Your task to perform on an android device: turn off notifications in google photos Image 0: 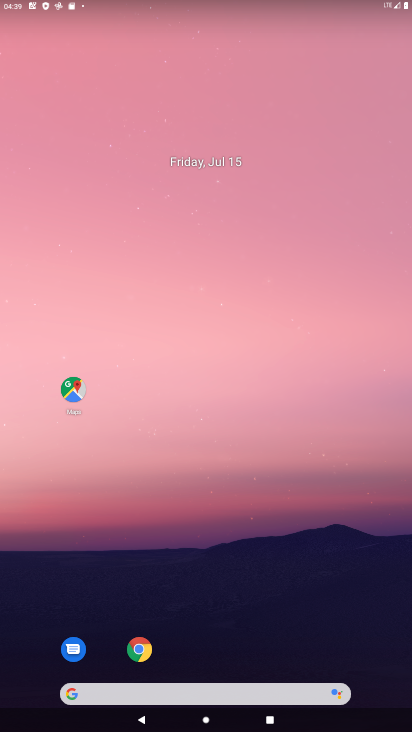
Step 0: drag from (320, 649) to (174, 246)
Your task to perform on an android device: turn off notifications in google photos Image 1: 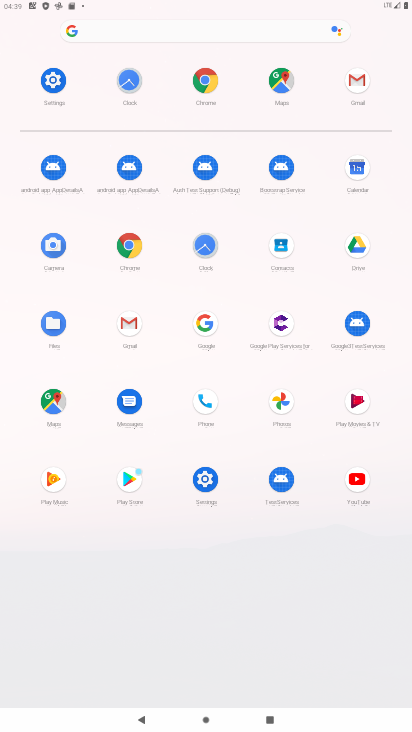
Step 1: click (275, 399)
Your task to perform on an android device: turn off notifications in google photos Image 2: 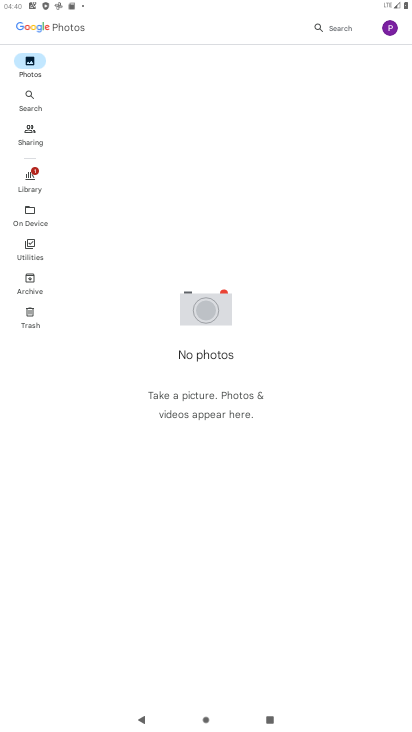
Step 2: click (395, 32)
Your task to perform on an android device: turn off notifications in google photos Image 3: 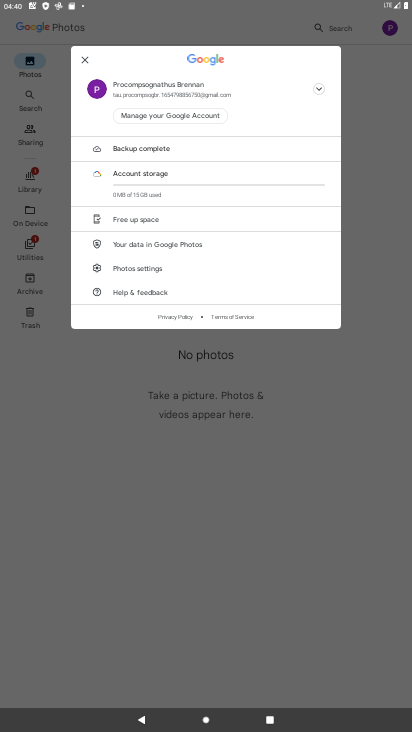
Step 3: click (148, 269)
Your task to perform on an android device: turn off notifications in google photos Image 4: 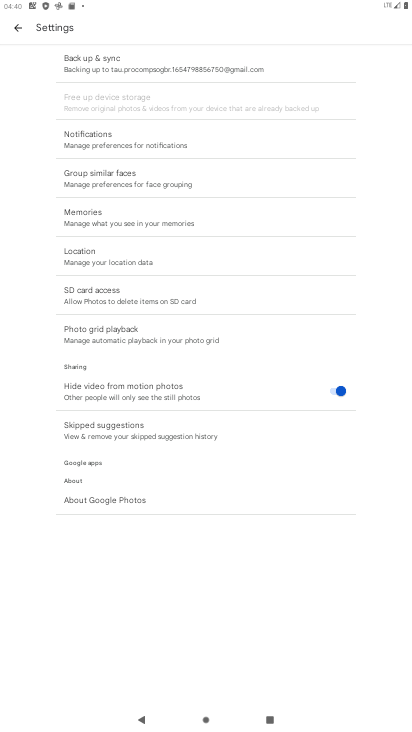
Step 4: click (70, 143)
Your task to perform on an android device: turn off notifications in google photos Image 5: 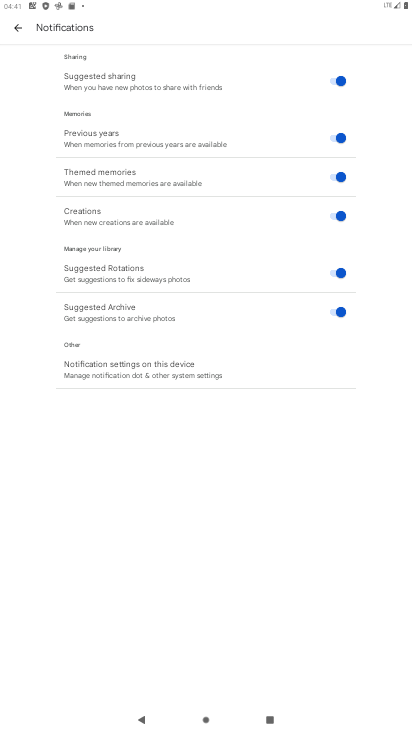
Step 5: click (194, 378)
Your task to perform on an android device: turn off notifications in google photos Image 6: 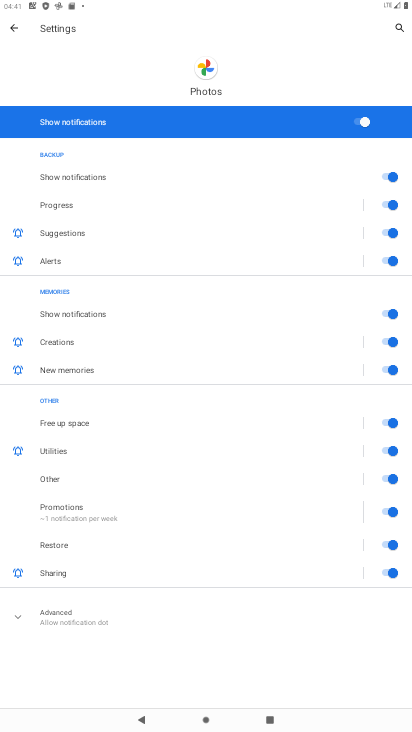
Step 6: click (357, 124)
Your task to perform on an android device: turn off notifications in google photos Image 7: 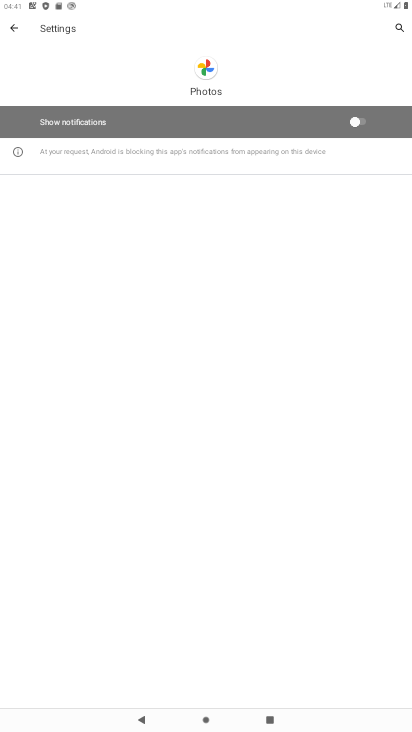
Step 7: task complete